Your task to perform on an android device: check data usage Image 0: 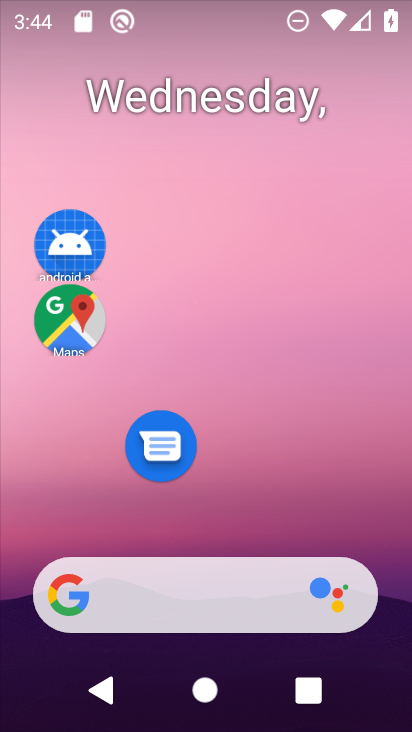
Step 0: drag from (320, 471) to (308, 185)
Your task to perform on an android device: check data usage Image 1: 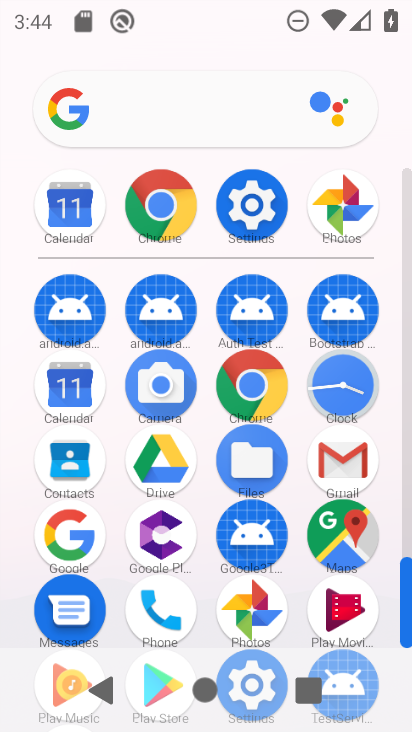
Step 1: click (264, 213)
Your task to perform on an android device: check data usage Image 2: 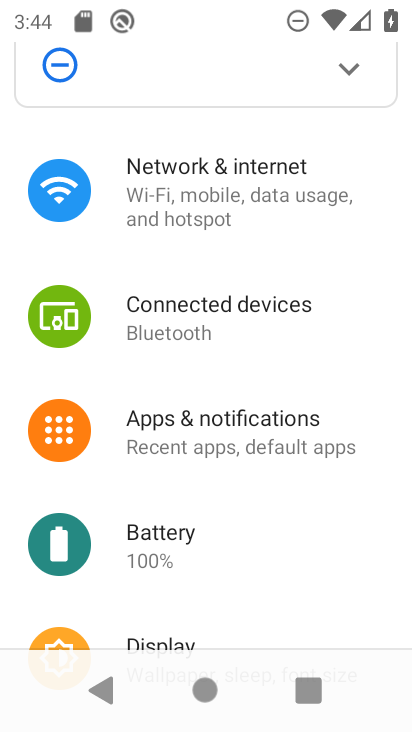
Step 2: click (240, 177)
Your task to perform on an android device: check data usage Image 3: 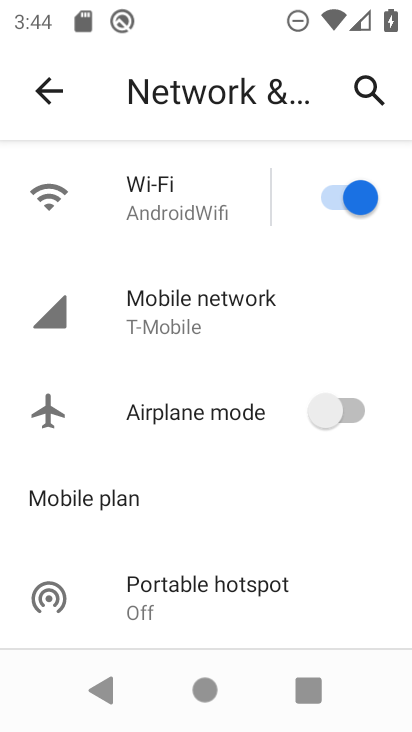
Step 3: click (236, 294)
Your task to perform on an android device: check data usage Image 4: 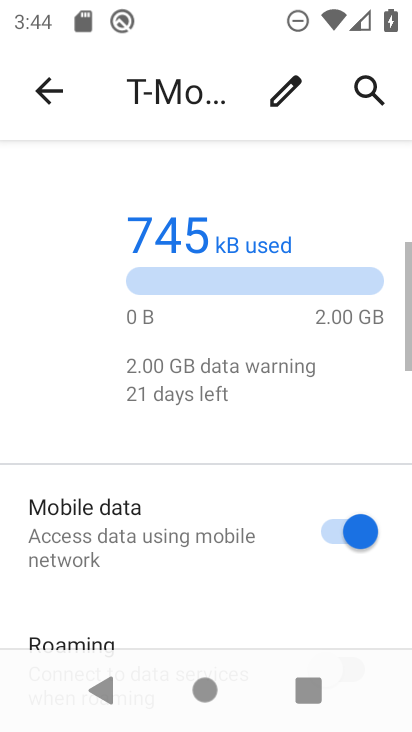
Step 4: task complete